Your task to perform on an android device: open the mobile data screen to see how much data has been used Image 0: 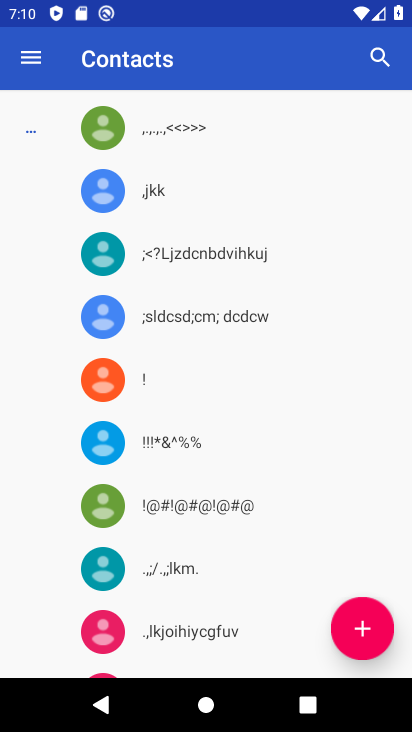
Step 0: press home button
Your task to perform on an android device: open the mobile data screen to see how much data has been used Image 1: 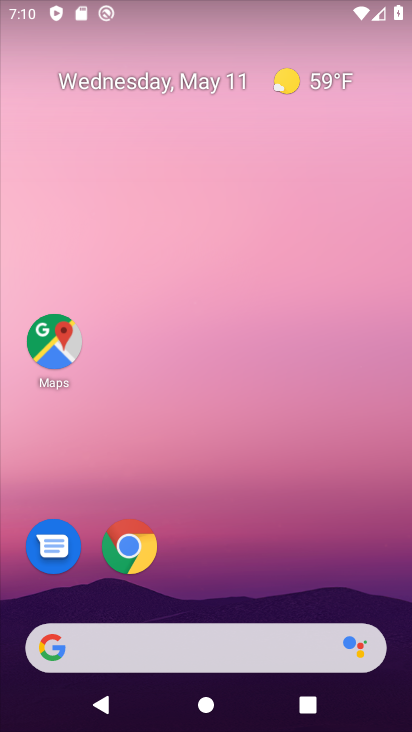
Step 1: drag from (310, 11) to (269, 430)
Your task to perform on an android device: open the mobile data screen to see how much data has been used Image 2: 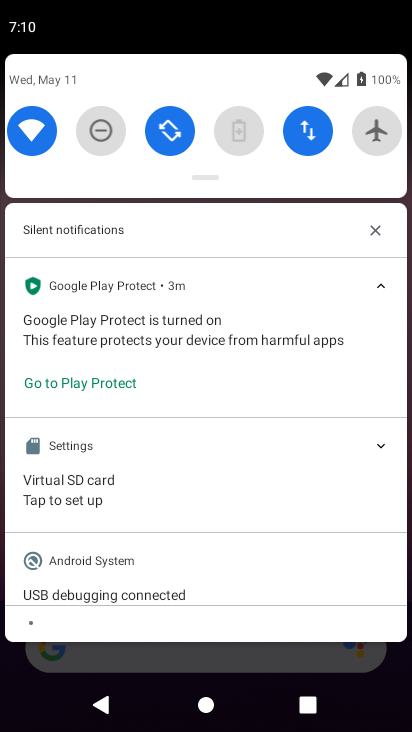
Step 2: click (318, 132)
Your task to perform on an android device: open the mobile data screen to see how much data has been used Image 3: 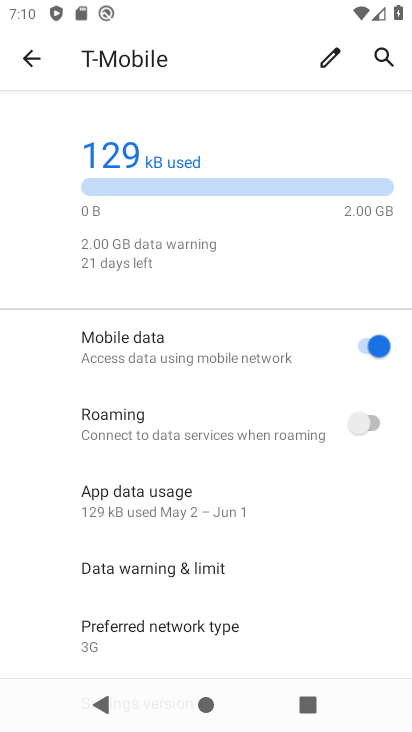
Step 3: task complete